Your task to perform on an android device: Find coffee shops on Maps Image 0: 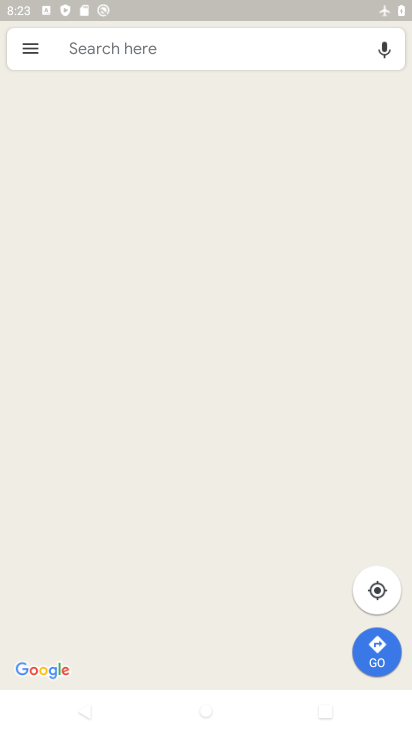
Step 0: press home button
Your task to perform on an android device: Find coffee shops on Maps Image 1: 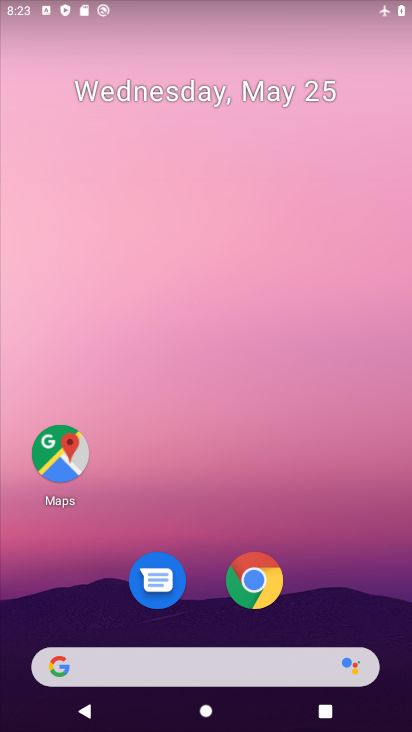
Step 1: drag from (349, 19) to (289, 457)
Your task to perform on an android device: Find coffee shops on Maps Image 2: 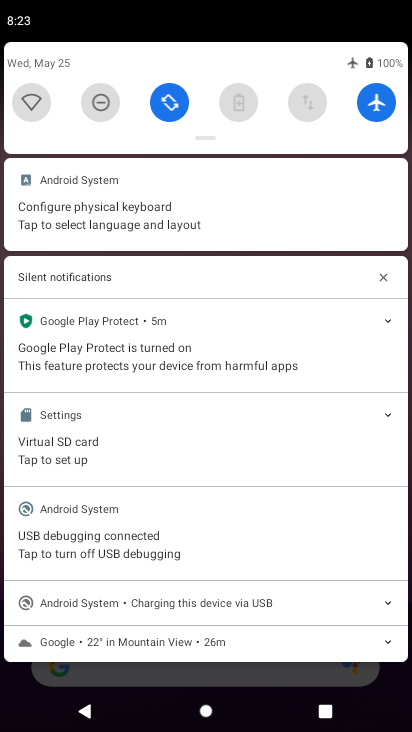
Step 2: click (387, 106)
Your task to perform on an android device: Find coffee shops on Maps Image 3: 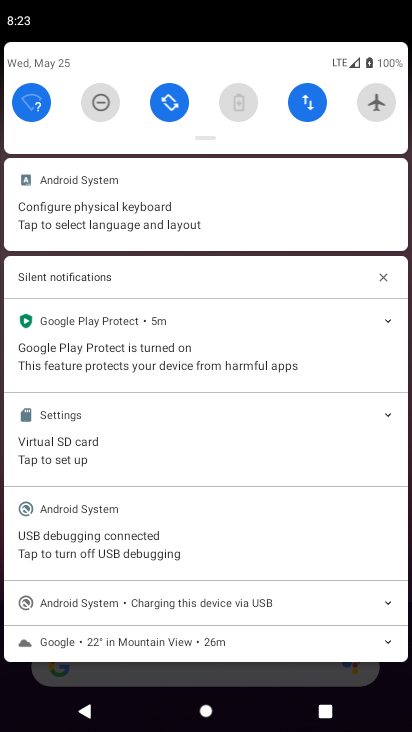
Step 3: press back button
Your task to perform on an android device: Find coffee shops on Maps Image 4: 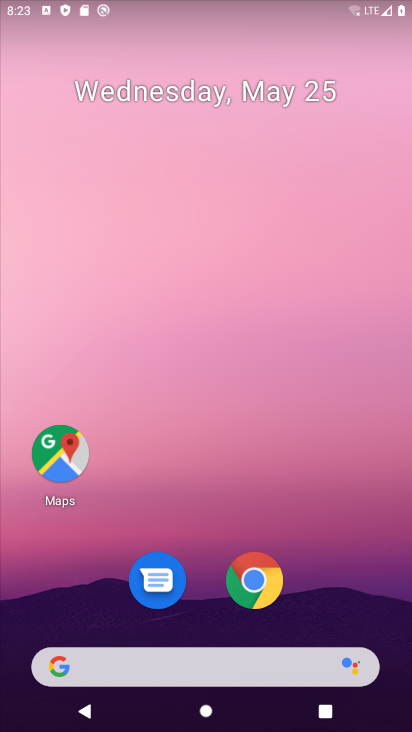
Step 4: click (67, 445)
Your task to perform on an android device: Find coffee shops on Maps Image 5: 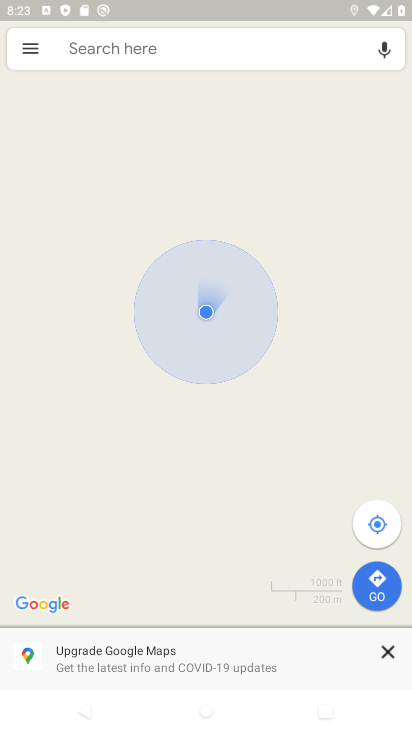
Step 5: click (212, 43)
Your task to perform on an android device: Find coffee shops on Maps Image 6: 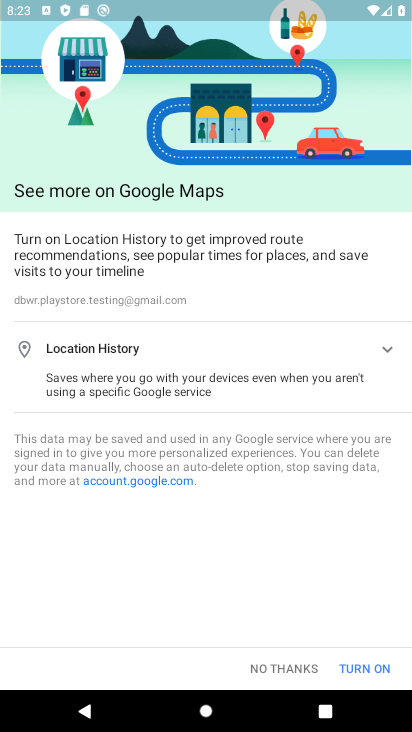
Step 6: click (279, 666)
Your task to perform on an android device: Find coffee shops on Maps Image 7: 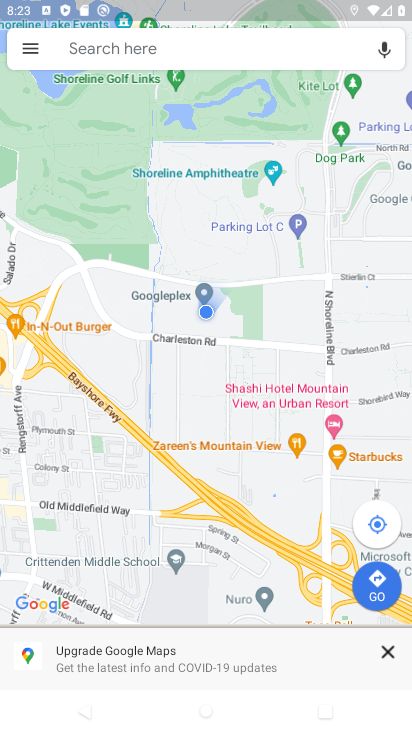
Step 7: click (202, 51)
Your task to perform on an android device: Find coffee shops on Maps Image 8: 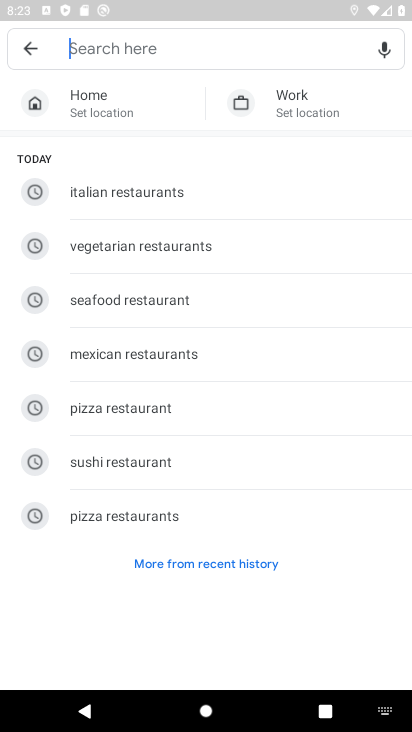
Step 8: click (171, 46)
Your task to perform on an android device: Find coffee shops on Maps Image 9: 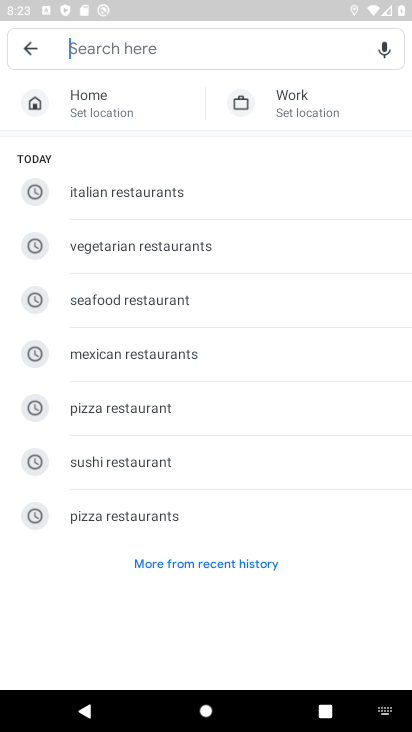
Step 9: type " coffee"
Your task to perform on an android device: Find coffee shops on Maps Image 10: 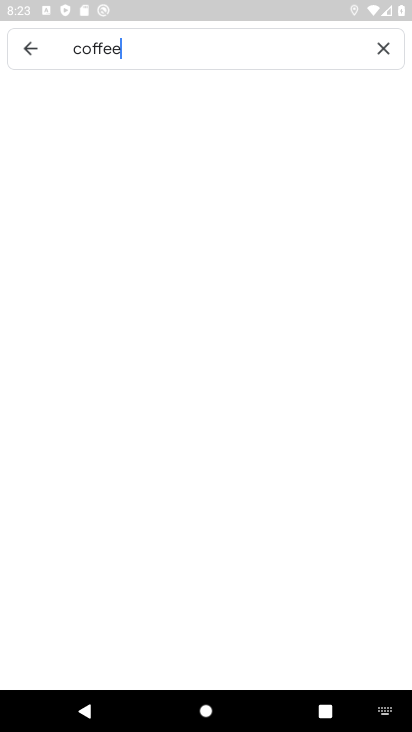
Step 10: type ""
Your task to perform on an android device: Find coffee shops on Maps Image 11: 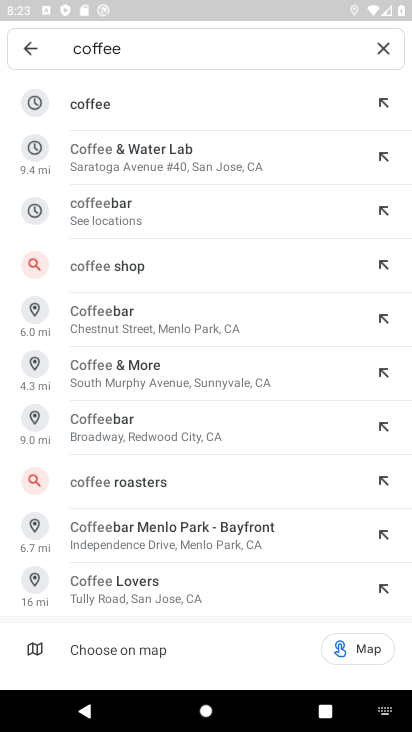
Step 11: click (121, 110)
Your task to perform on an android device: Find coffee shops on Maps Image 12: 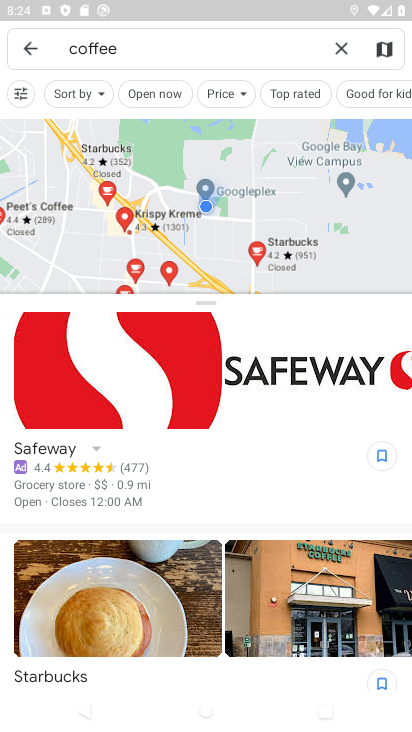
Step 12: task complete